Your task to perform on an android device: turn on location history Image 0: 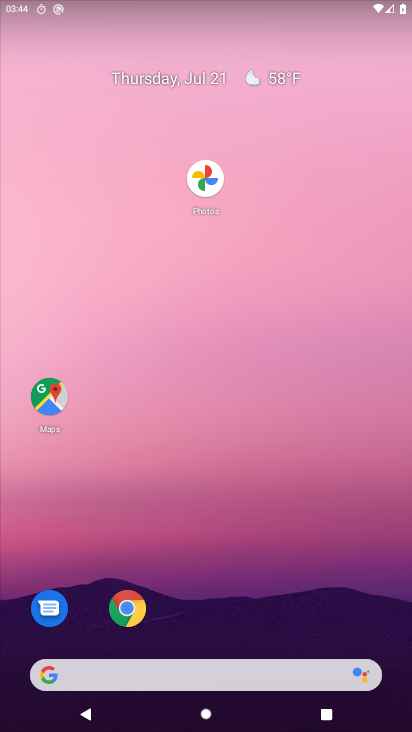
Step 0: drag from (208, 632) to (213, 174)
Your task to perform on an android device: turn on location history Image 1: 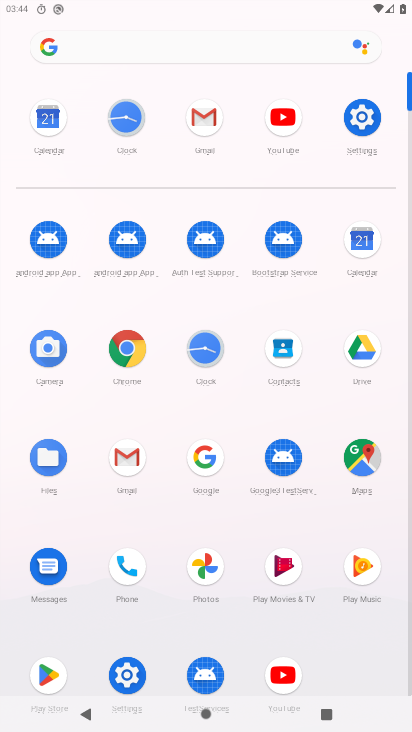
Step 1: drag from (253, 614) to (280, 45)
Your task to perform on an android device: turn on location history Image 2: 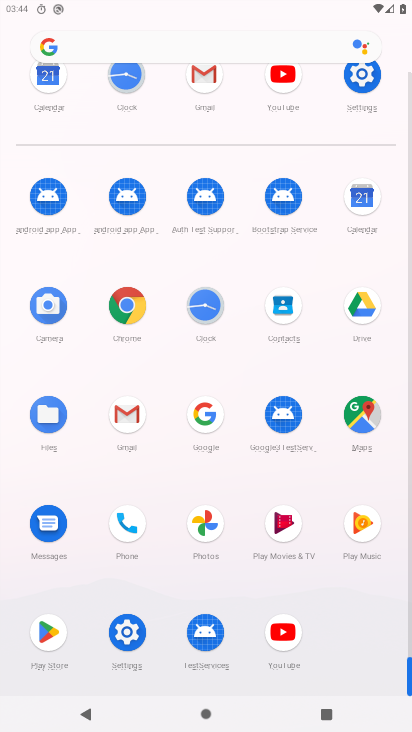
Step 2: click (362, 75)
Your task to perform on an android device: turn on location history Image 3: 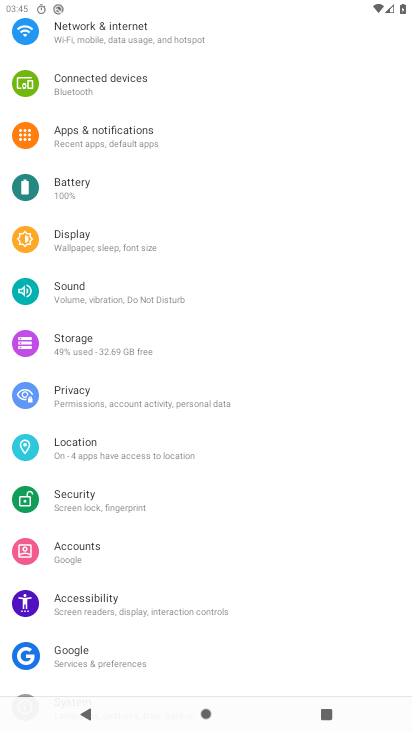
Step 3: click (131, 444)
Your task to perform on an android device: turn on location history Image 4: 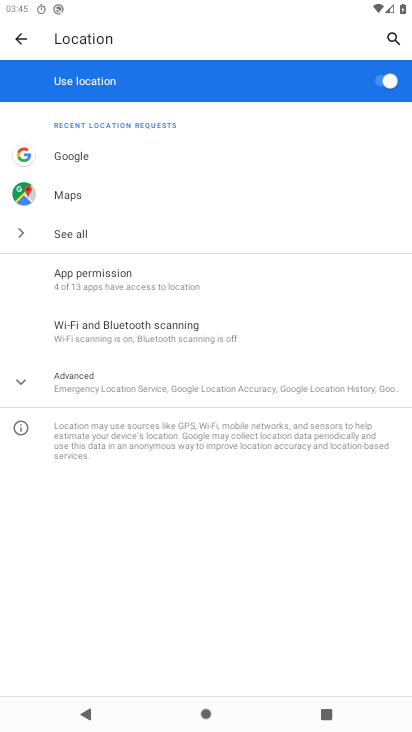
Step 4: click (51, 386)
Your task to perform on an android device: turn on location history Image 5: 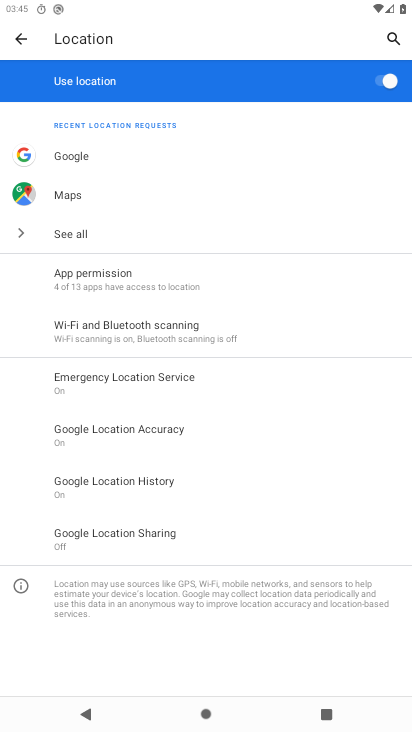
Step 5: click (116, 478)
Your task to perform on an android device: turn on location history Image 6: 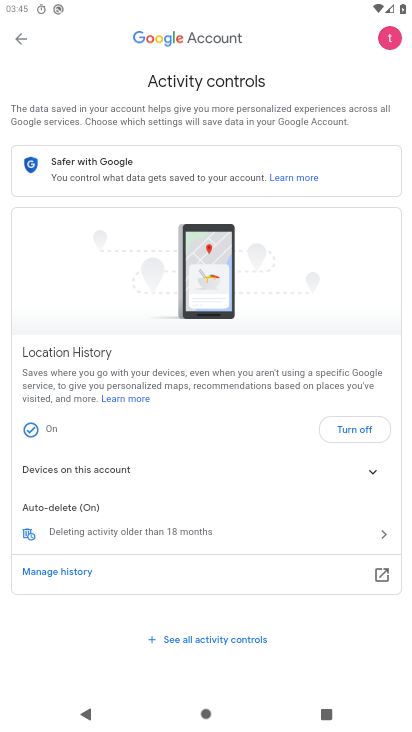
Step 6: task complete